Your task to perform on an android device: Play the last video I watched on Youtube Image 0: 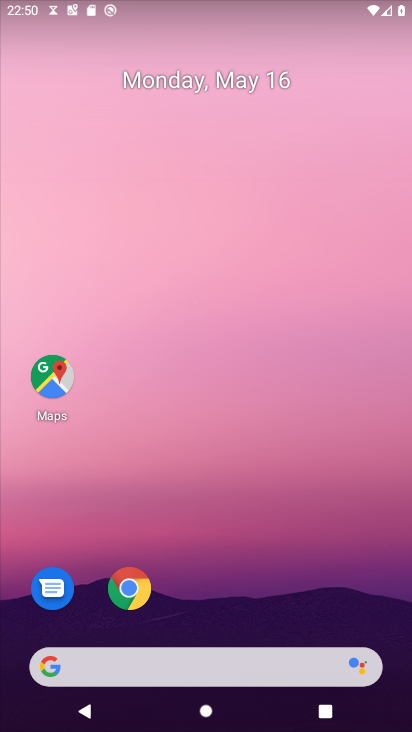
Step 0: drag from (217, 626) to (229, 50)
Your task to perform on an android device: Play the last video I watched on Youtube Image 1: 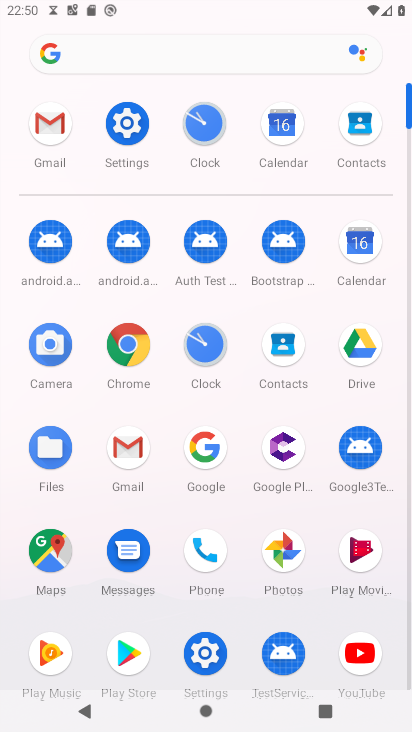
Step 1: click (356, 644)
Your task to perform on an android device: Play the last video I watched on Youtube Image 2: 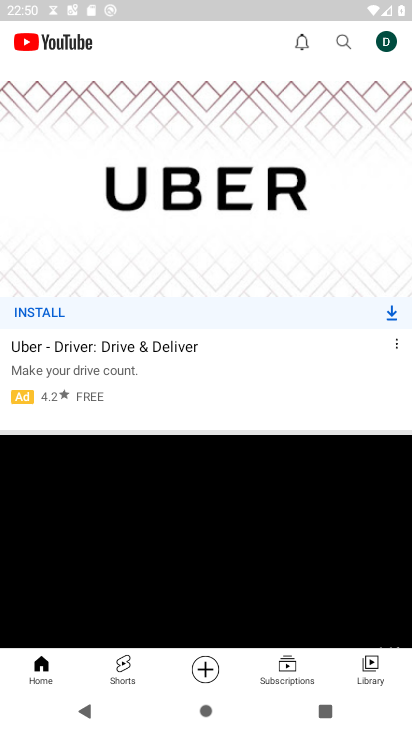
Step 2: drag from (215, 415) to (258, 54)
Your task to perform on an android device: Play the last video I watched on Youtube Image 3: 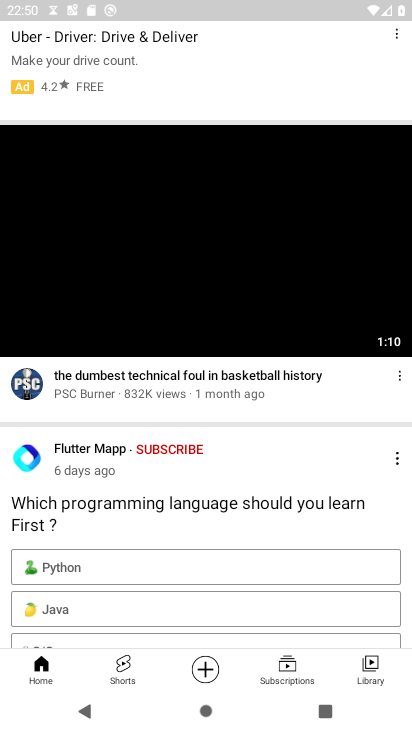
Step 3: click (363, 661)
Your task to perform on an android device: Play the last video I watched on Youtube Image 4: 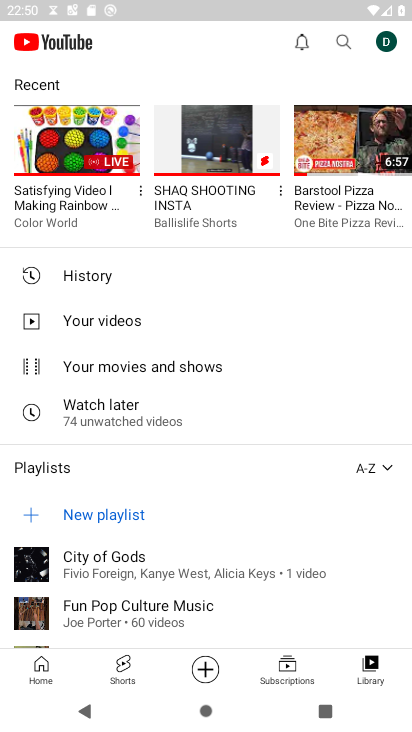
Step 4: click (79, 127)
Your task to perform on an android device: Play the last video I watched on Youtube Image 5: 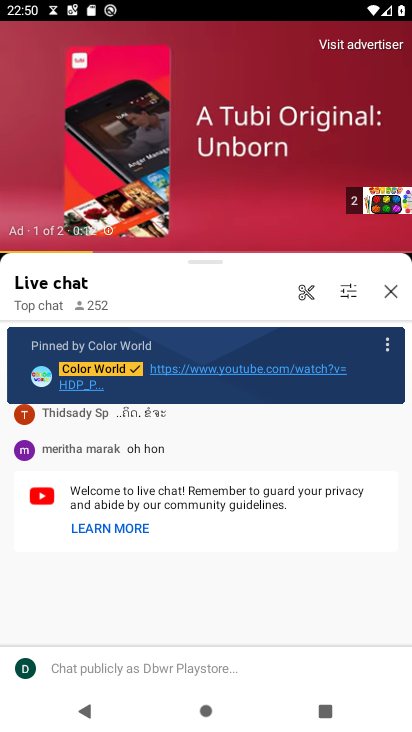
Step 5: click (388, 292)
Your task to perform on an android device: Play the last video I watched on Youtube Image 6: 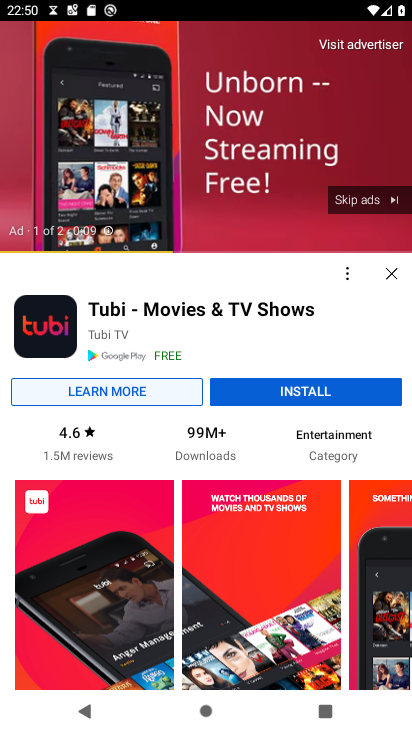
Step 6: click (382, 202)
Your task to perform on an android device: Play the last video I watched on Youtube Image 7: 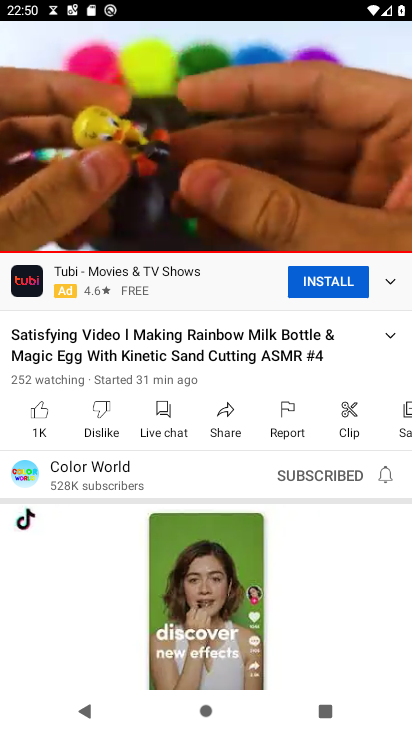
Step 7: task complete